Your task to perform on an android device: Open CNN.com Image 0: 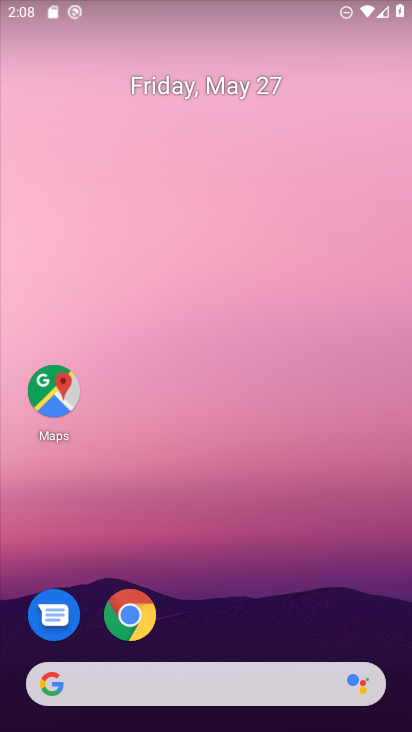
Step 0: drag from (261, 601) to (362, 147)
Your task to perform on an android device: Open CNN.com Image 1: 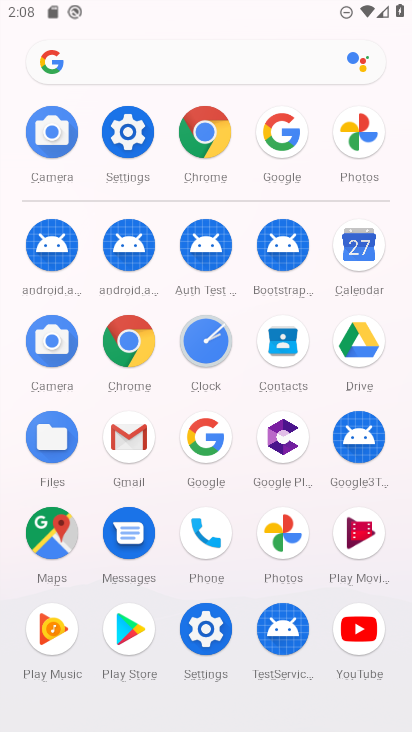
Step 1: click (116, 354)
Your task to perform on an android device: Open CNN.com Image 2: 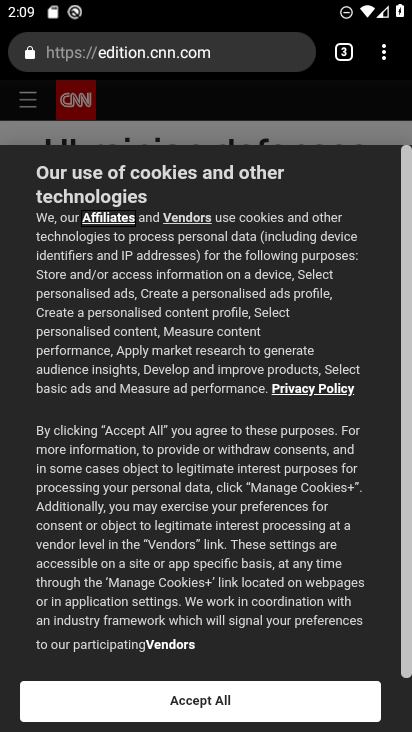
Step 2: task complete